Your task to perform on an android device: Open privacy settings Image 0: 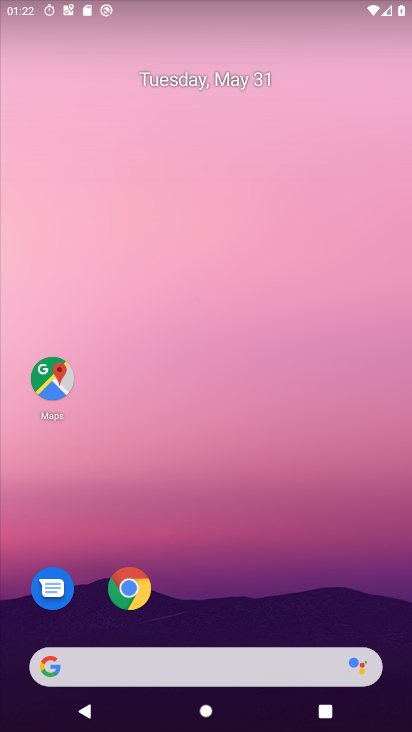
Step 0: drag from (205, 559) to (273, 119)
Your task to perform on an android device: Open privacy settings Image 1: 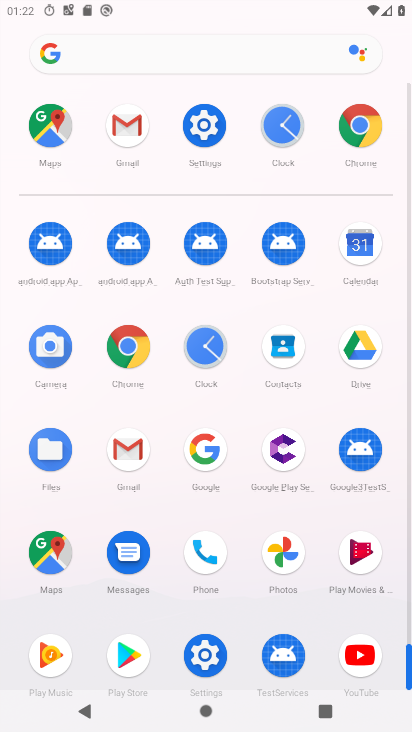
Step 1: click (212, 115)
Your task to perform on an android device: Open privacy settings Image 2: 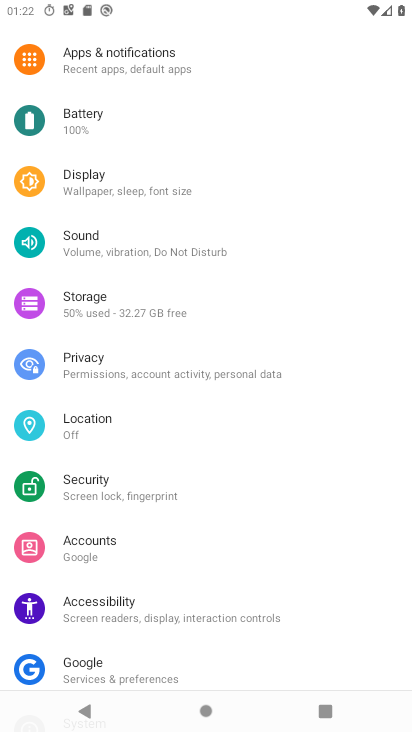
Step 2: click (125, 369)
Your task to perform on an android device: Open privacy settings Image 3: 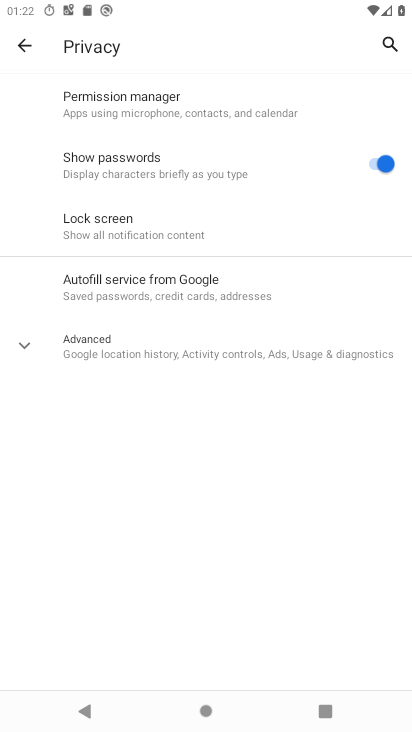
Step 3: task complete